Your task to perform on an android device: Open Youtube and go to the subscriptions tab Image 0: 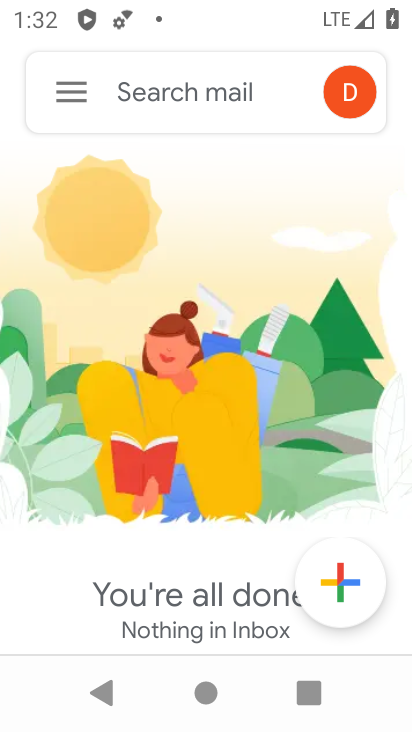
Step 0: press home button
Your task to perform on an android device: Open Youtube and go to the subscriptions tab Image 1: 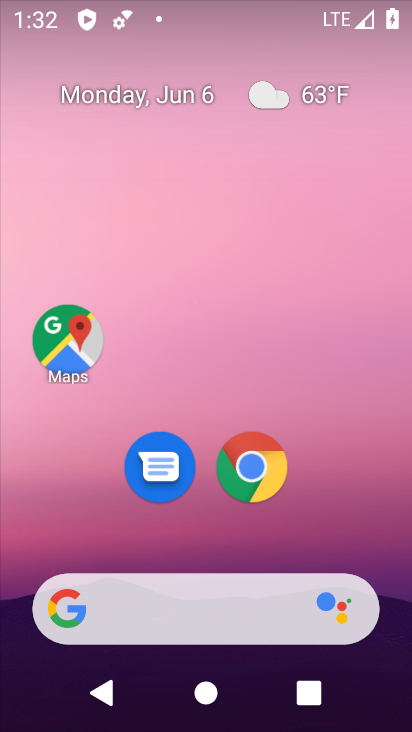
Step 1: drag from (400, 558) to (237, 31)
Your task to perform on an android device: Open Youtube and go to the subscriptions tab Image 2: 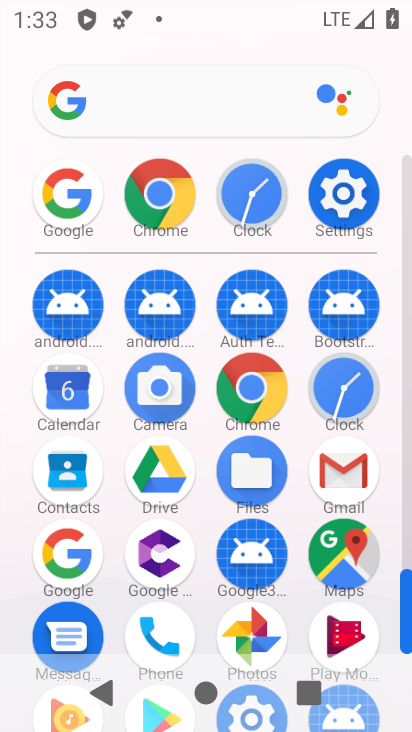
Step 2: drag from (260, 429) to (256, 122)
Your task to perform on an android device: Open Youtube and go to the subscriptions tab Image 3: 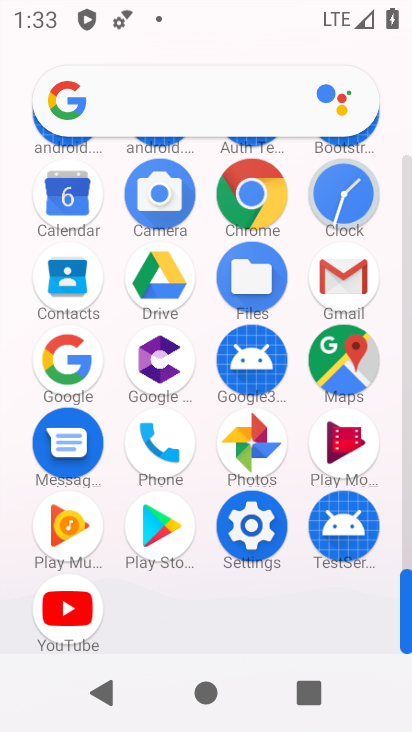
Step 3: click (72, 632)
Your task to perform on an android device: Open Youtube and go to the subscriptions tab Image 4: 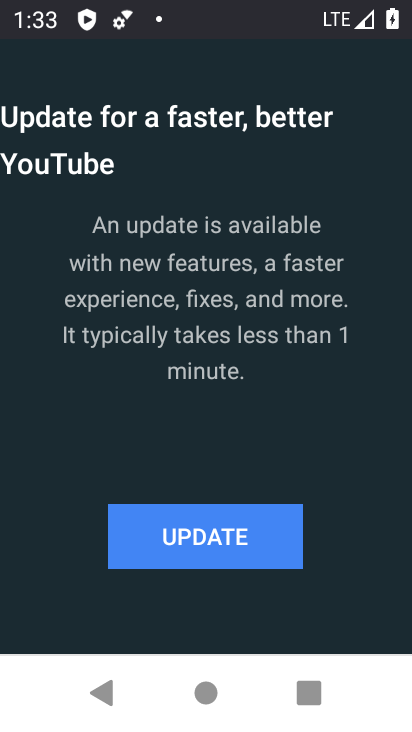
Step 4: click (193, 535)
Your task to perform on an android device: Open Youtube and go to the subscriptions tab Image 5: 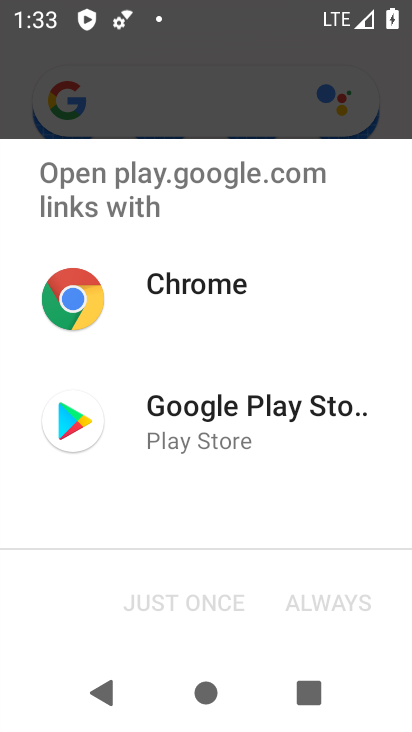
Step 5: click (119, 407)
Your task to perform on an android device: Open Youtube and go to the subscriptions tab Image 6: 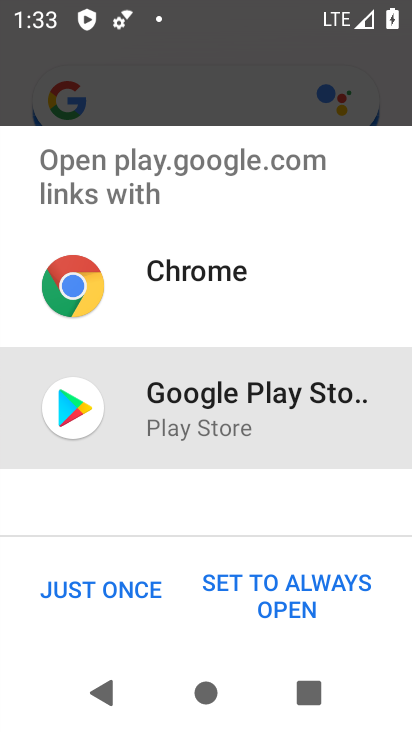
Step 6: click (88, 599)
Your task to perform on an android device: Open Youtube and go to the subscriptions tab Image 7: 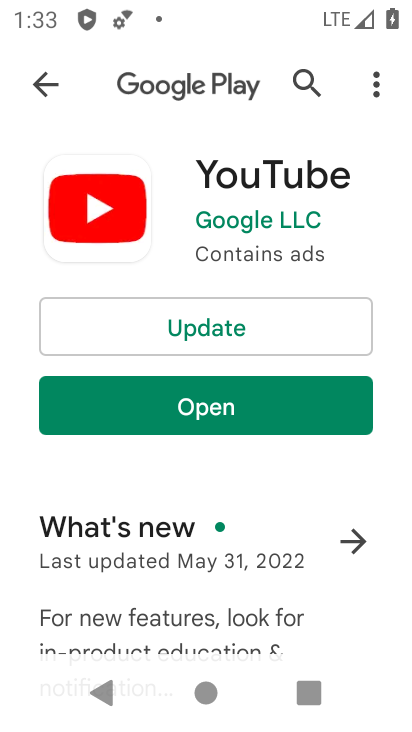
Step 7: click (249, 322)
Your task to perform on an android device: Open Youtube and go to the subscriptions tab Image 8: 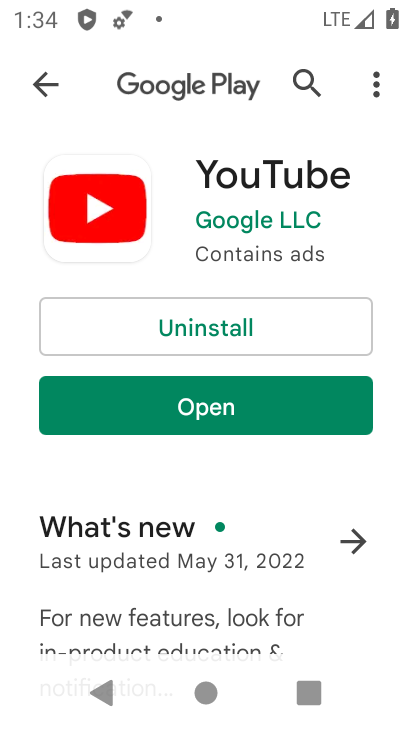
Step 8: click (220, 391)
Your task to perform on an android device: Open Youtube and go to the subscriptions tab Image 9: 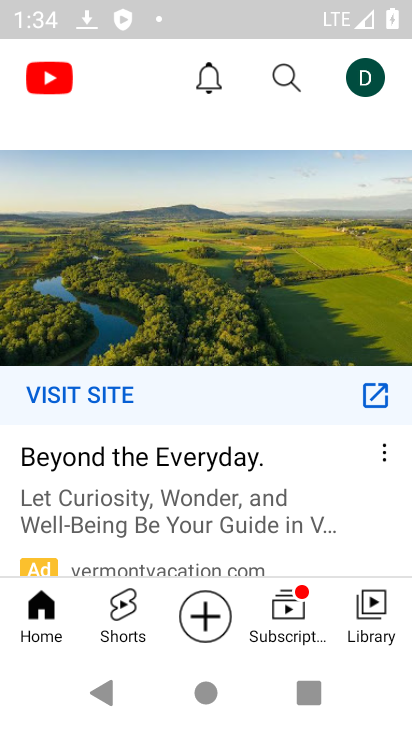
Step 9: click (291, 586)
Your task to perform on an android device: Open Youtube and go to the subscriptions tab Image 10: 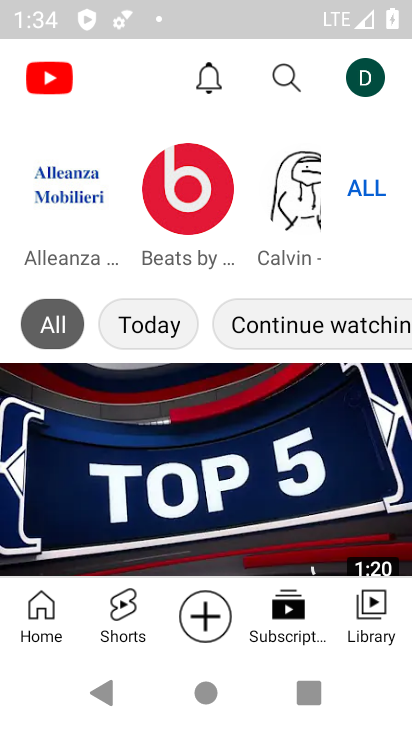
Step 10: task complete